Your task to perform on an android device: Go to Amazon Image 0: 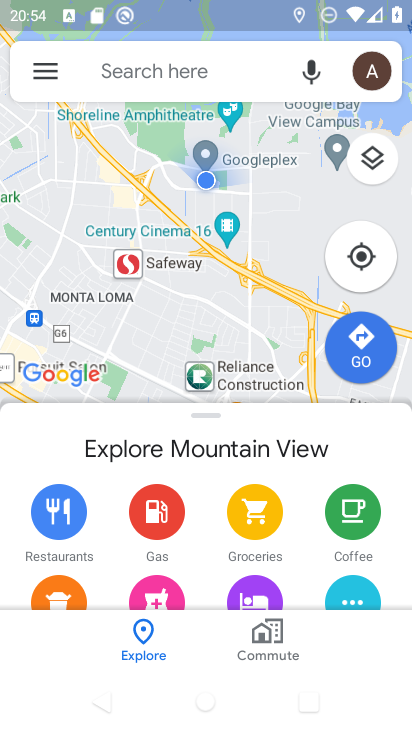
Step 0: press home button
Your task to perform on an android device: Go to Amazon Image 1: 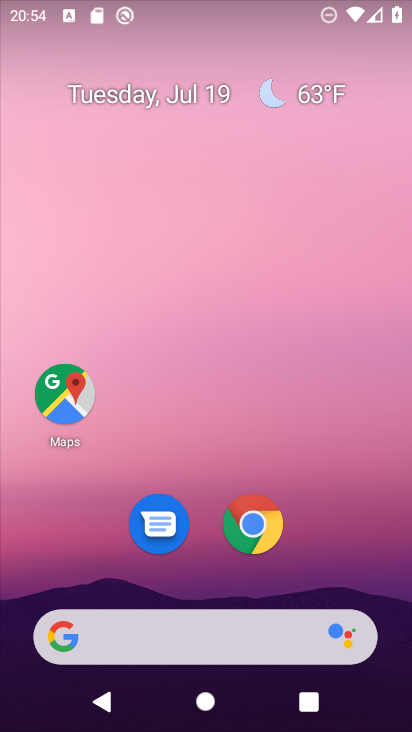
Step 1: click (267, 526)
Your task to perform on an android device: Go to Amazon Image 2: 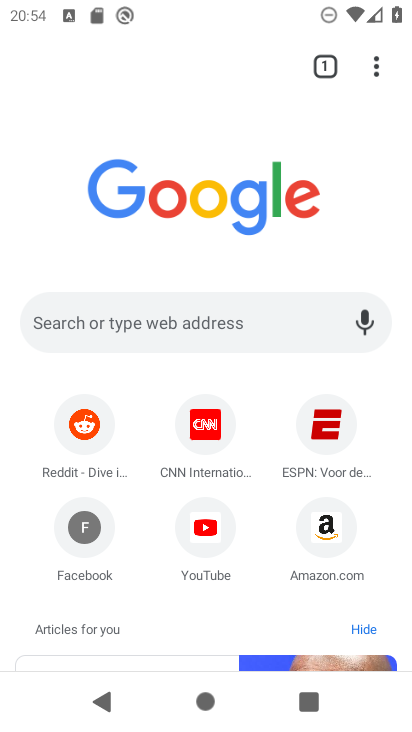
Step 2: click (315, 521)
Your task to perform on an android device: Go to Amazon Image 3: 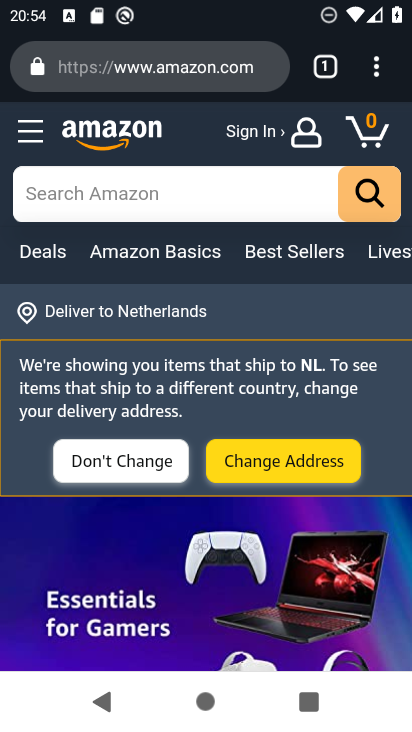
Step 3: task complete